Your task to perform on an android device: Open settings Image 0: 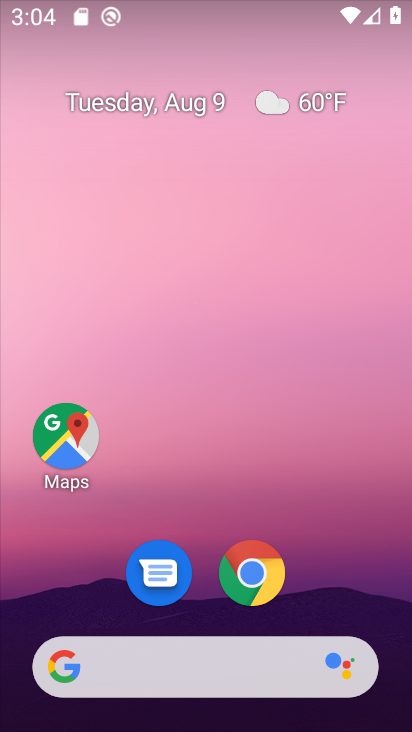
Step 0: drag from (331, 587) to (238, 186)
Your task to perform on an android device: Open settings Image 1: 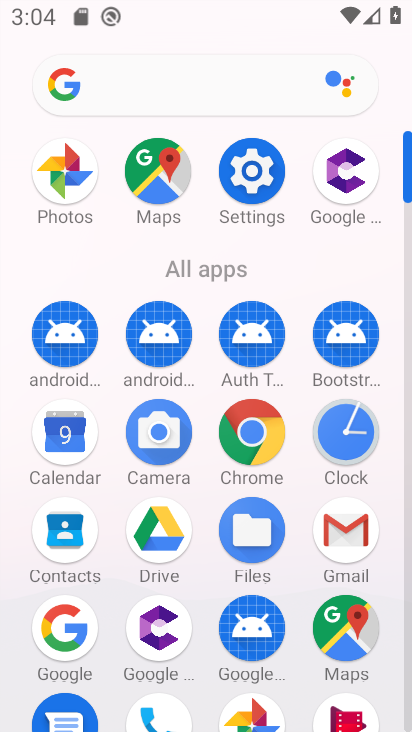
Step 1: click (252, 169)
Your task to perform on an android device: Open settings Image 2: 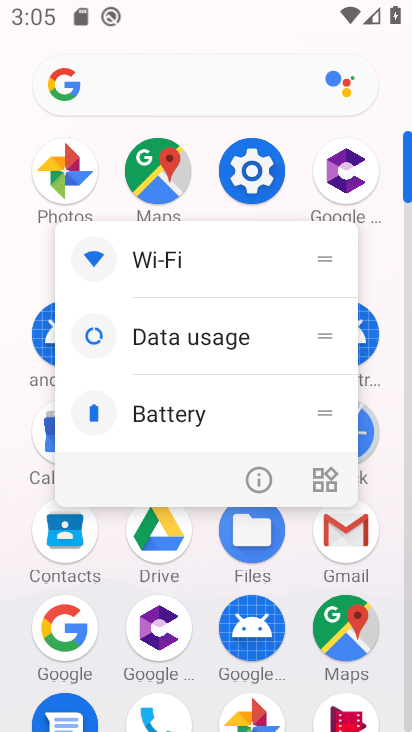
Step 2: click (252, 169)
Your task to perform on an android device: Open settings Image 3: 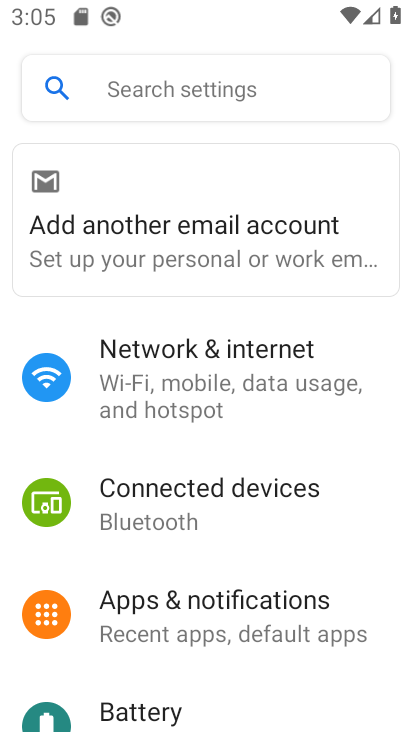
Step 3: task complete